Your task to perform on an android device: turn notification dots on Image 0: 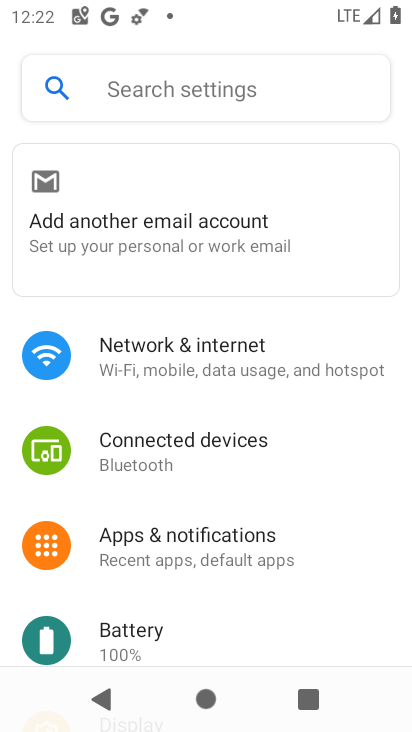
Step 0: press home button
Your task to perform on an android device: turn notification dots on Image 1: 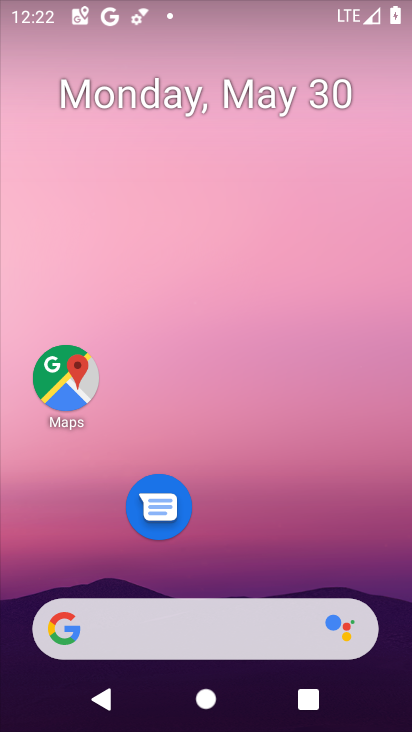
Step 1: drag from (261, 544) to (269, 63)
Your task to perform on an android device: turn notification dots on Image 2: 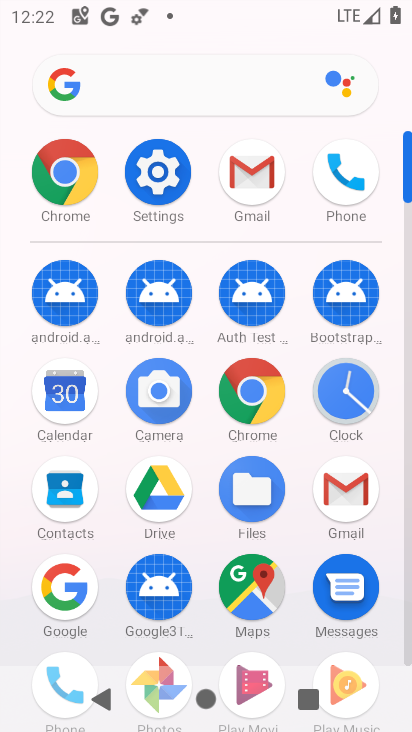
Step 2: click (159, 171)
Your task to perform on an android device: turn notification dots on Image 3: 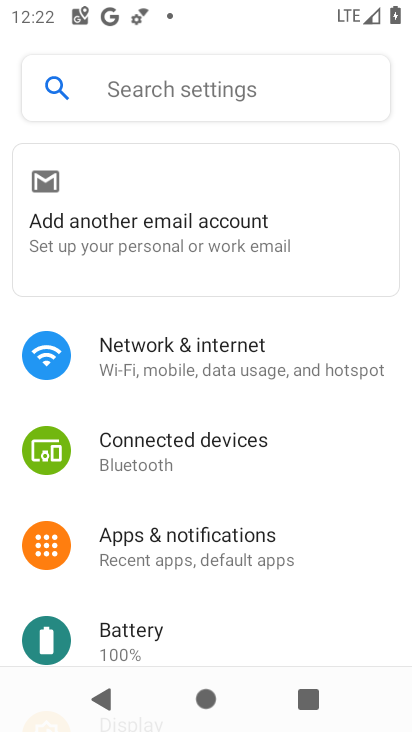
Step 3: click (108, 546)
Your task to perform on an android device: turn notification dots on Image 4: 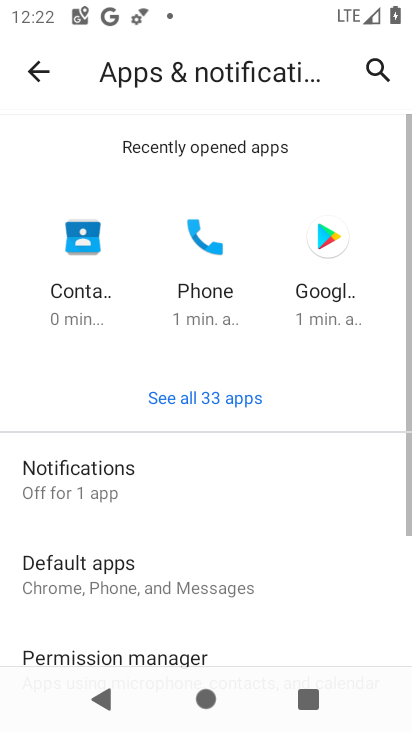
Step 4: click (73, 478)
Your task to perform on an android device: turn notification dots on Image 5: 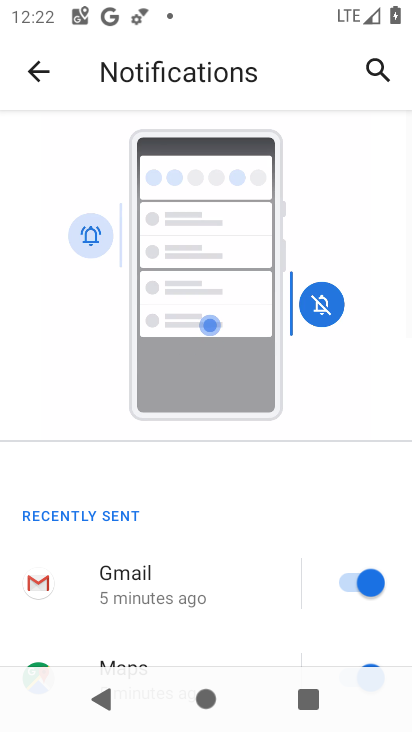
Step 5: drag from (248, 548) to (253, 127)
Your task to perform on an android device: turn notification dots on Image 6: 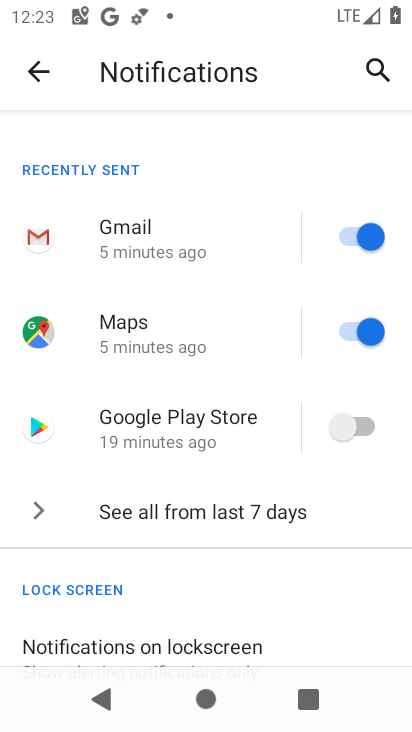
Step 6: drag from (220, 464) to (253, 74)
Your task to perform on an android device: turn notification dots on Image 7: 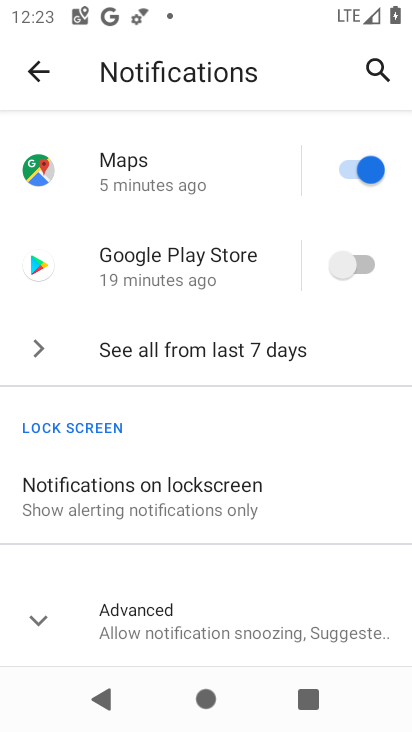
Step 7: click (155, 625)
Your task to perform on an android device: turn notification dots on Image 8: 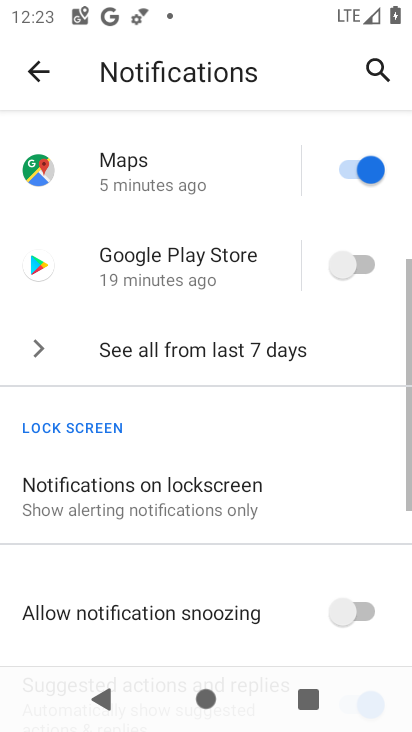
Step 8: task complete